Your task to perform on an android device: Show me recent news Image 0: 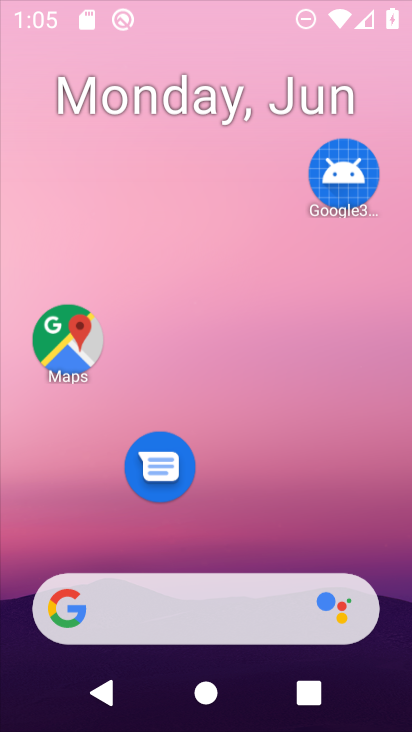
Step 0: press home button
Your task to perform on an android device: Show me recent news Image 1: 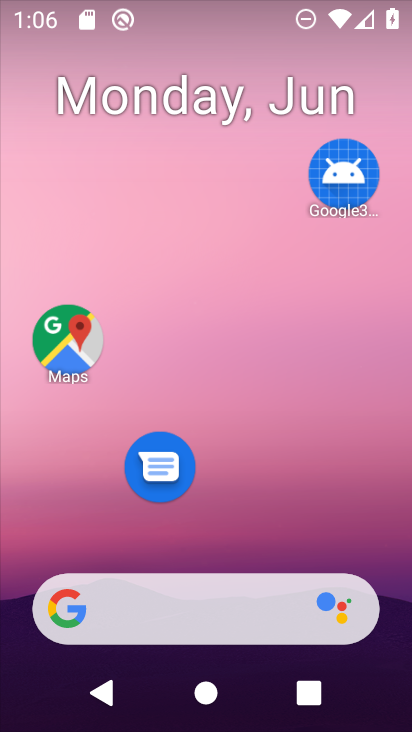
Step 1: drag from (280, 520) to (276, 41)
Your task to perform on an android device: Show me recent news Image 2: 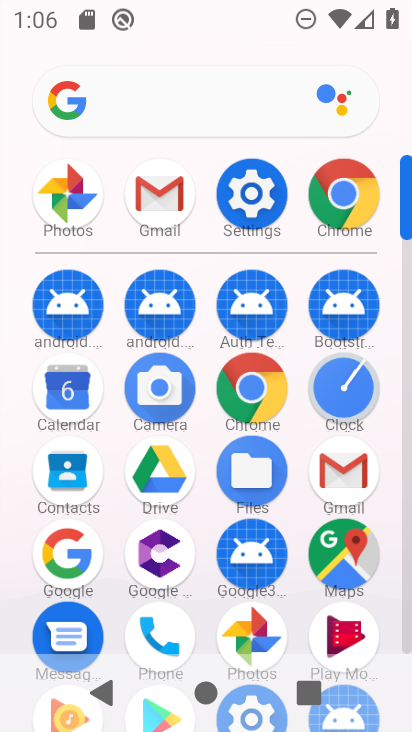
Step 2: click (347, 179)
Your task to perform on an android device: Show me recent news Image 3: 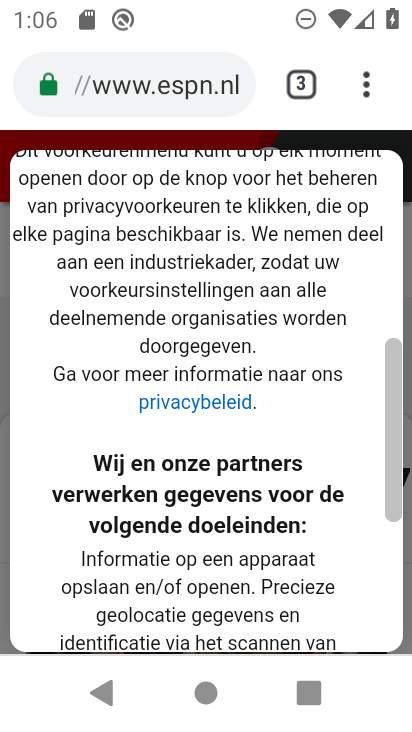
Step 3: click (203, 103)
Your task to perform on an android device: Show me recent news Image 4: 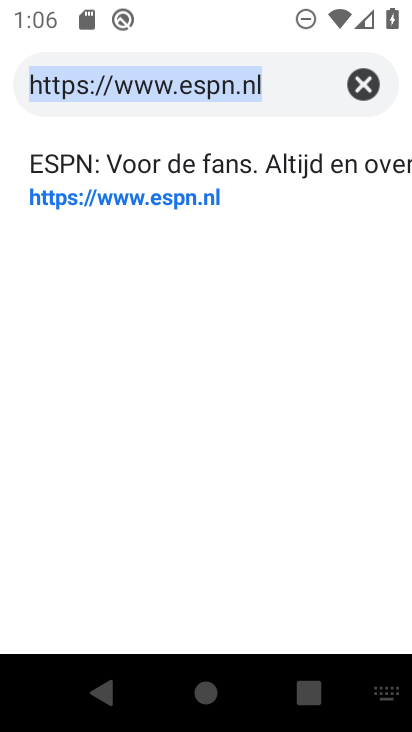
Step 4: type " news"
Your task to perform on an android device: Show me recent news Image 5: 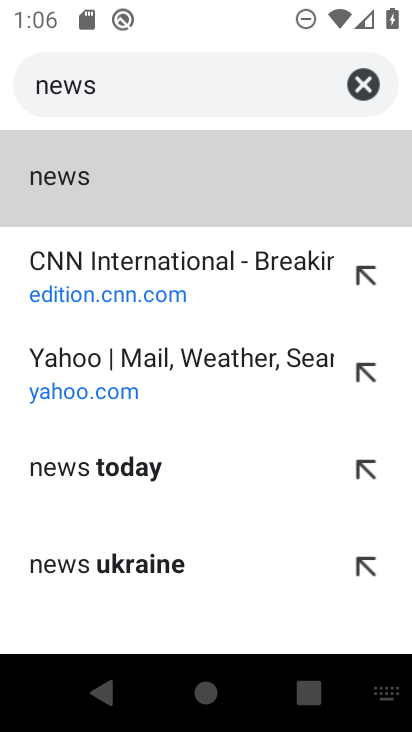
Step 5: click (167, 151)
Your task to perform on an android device: Show me recent news Image 6: 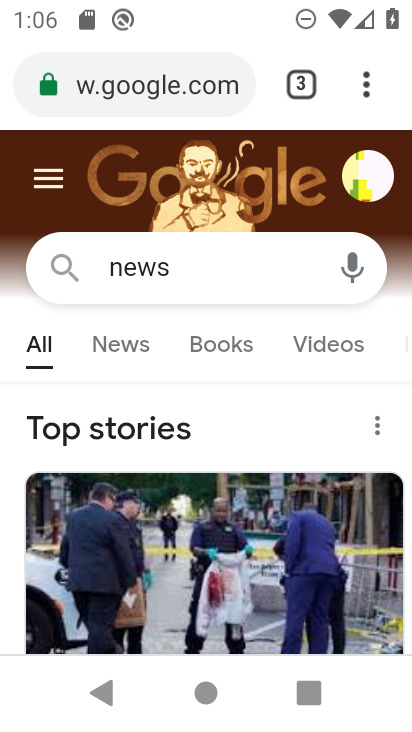
Step 6: task complete